Your task to perform on an android device: star an email in the gmail app Image 0: 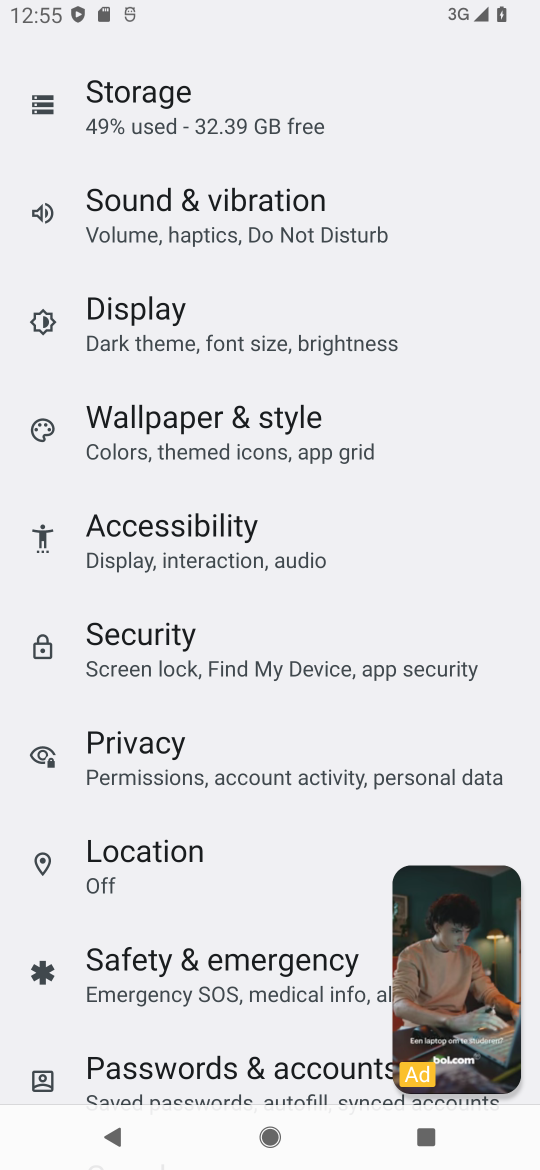
Step 0: press home button
Your task to perform on an android device: star an email in the gmail app Image 1: 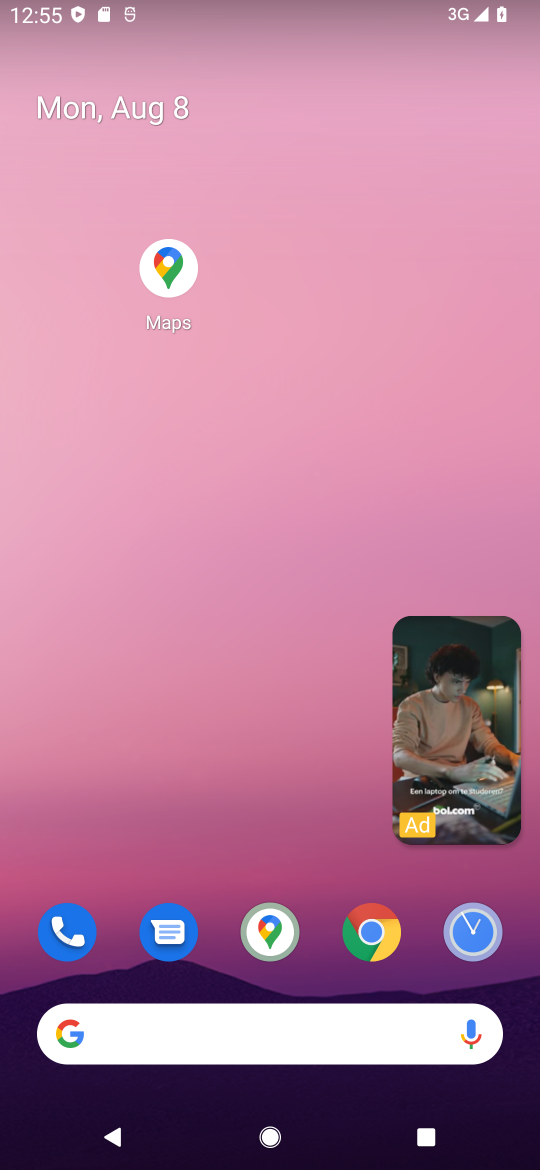
Step 1: drag from (223, 904) to (314, 305)
Your task to perform on an android device: star an email in the gmail app Image 2: 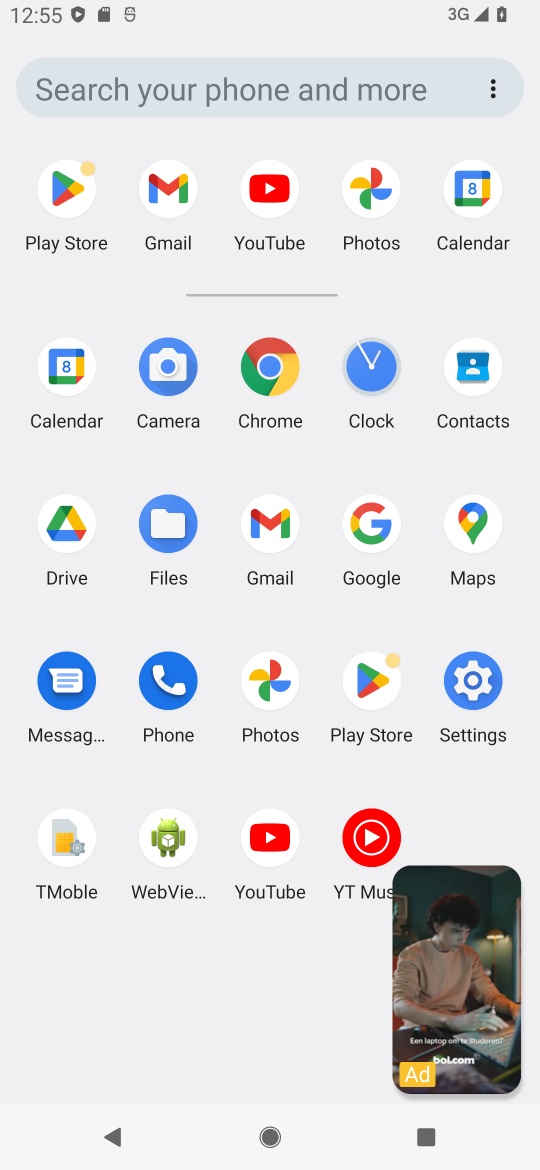
Step 2: click (281, 549)
Your task to perform on an android device: star an email in the gmail app Image 3: 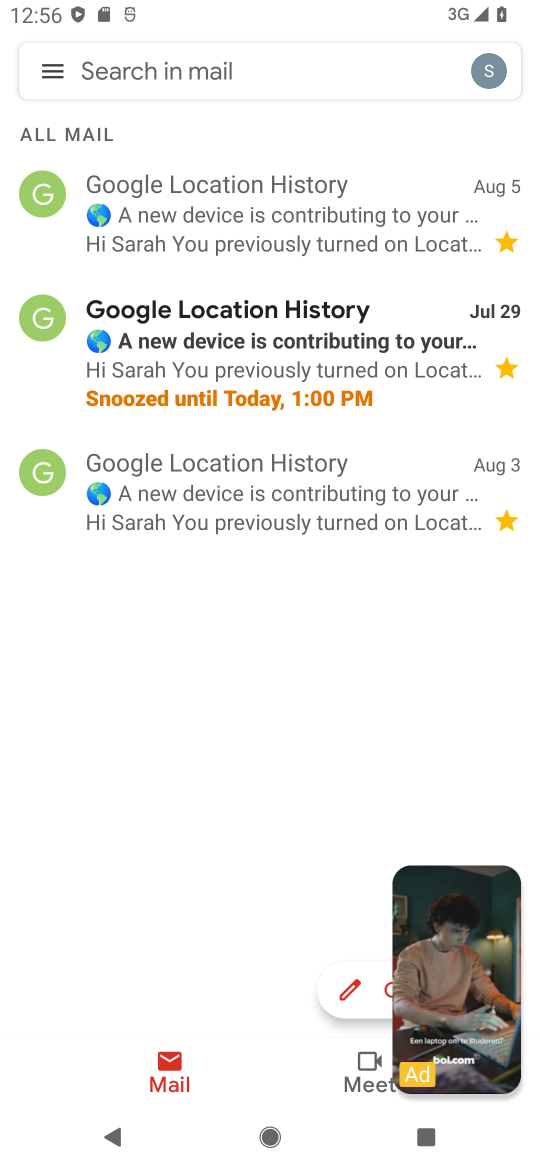
Step 3: task complete